Your task to perform on an android device: Open calendar and show me the second week of next month Image 0: 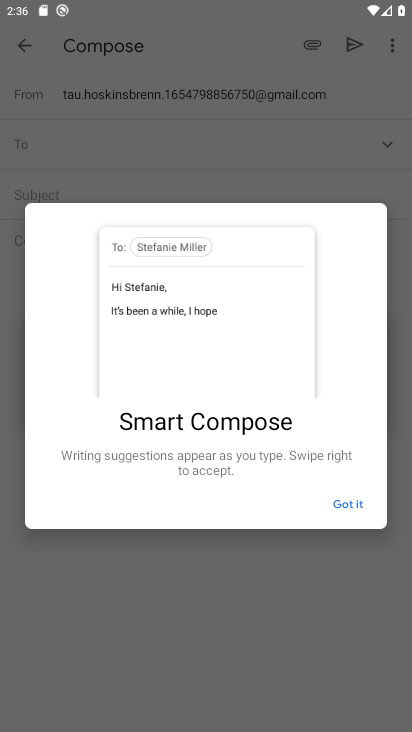
Step 0: press home button
Your task to perform on an android device: Open calendar and show me the second week of next month Image 1: 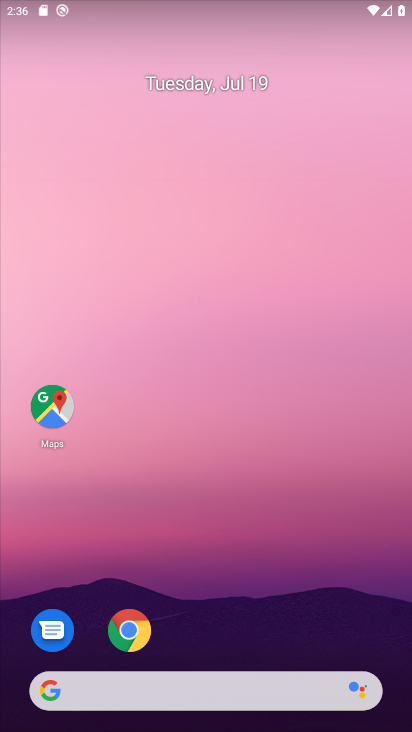
Step 1: drag from (204, 516) to (121, 38)
Your task to perform on an android device: Open calendar and show me the second week of next month Image 2: 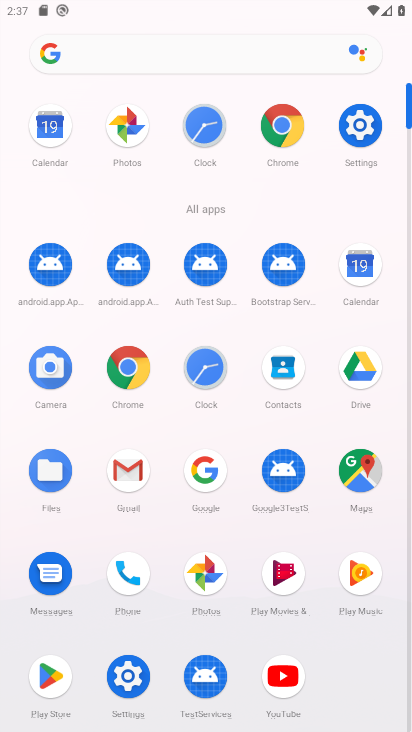
Step 2: click (362, 266)
Your task to perform on an android device: Open calendar and show me the second week of next month Image 3: 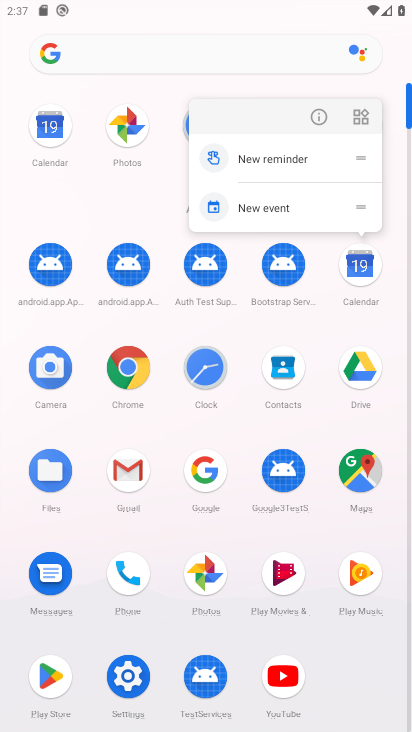
Step 3: click (138, 197)
Your task to perform on an android device: Open calendar and show me the second week of next month Image 4: 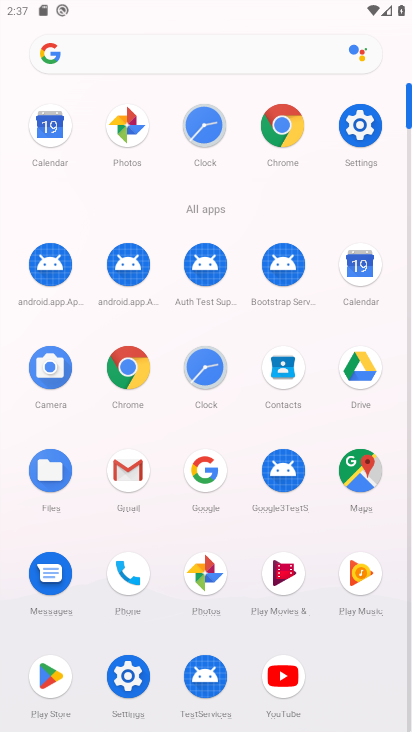
Step 4: click (359, 256)
Your task to perform on an android device: Open calendar and show me the second week of next month Image 5: 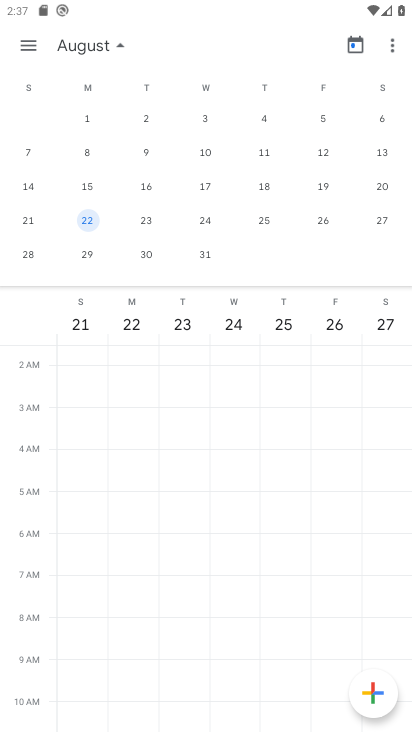
Step 5: click (89, 145)
Your task to perform on an android device: Open calendar and show me the second week of next month Image 6: 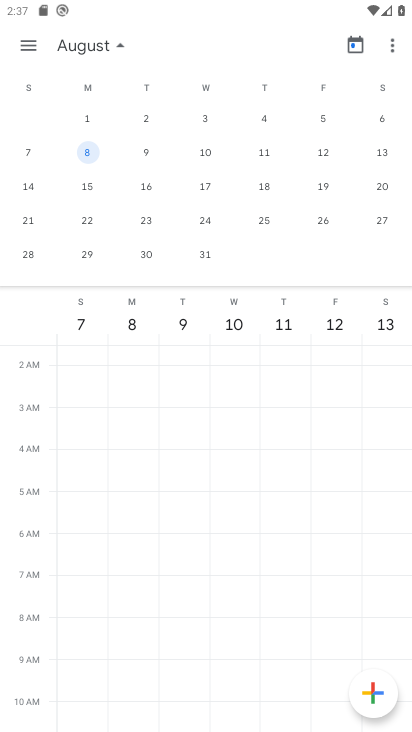
Step 6: task complete